Your task to perform on an android device: change alarm snooze length Image 0: 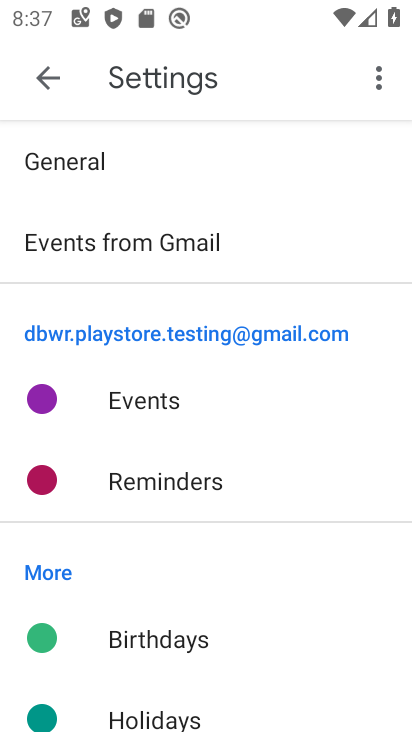
Step 0: press home button
Your task to perform on an android device: change alarm snooze length Image 1: 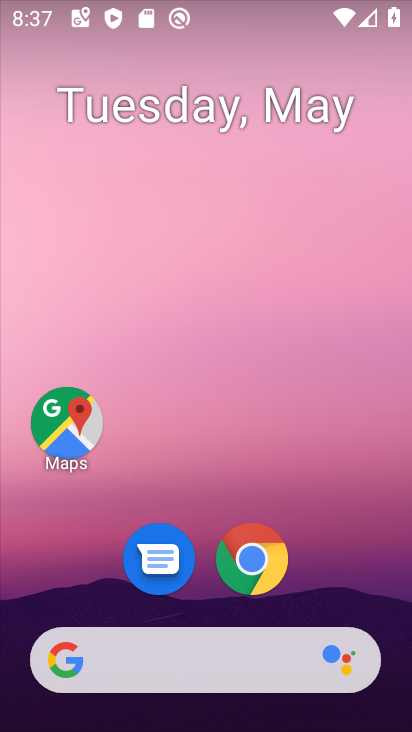
Step 1: drag from (333, 481) to (315, 78)
Your task to perform on an android device: change alarm snooze length Image 2: 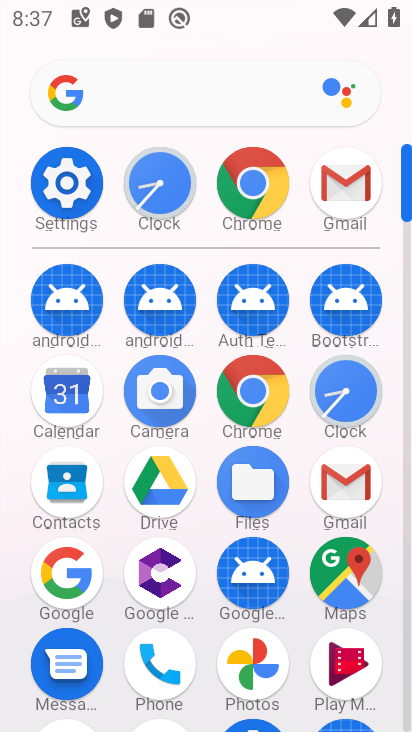
Step 2: click (343, 401)
Your task to perform on an android device: change alarm snooze length Image 3: 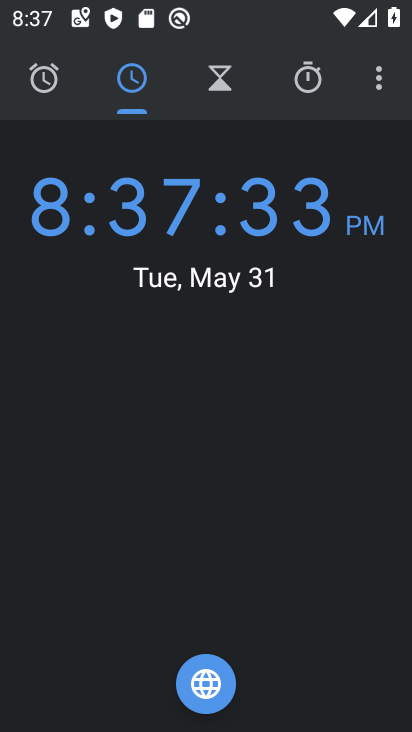
Step 3: click (388, 82)
Your task to perform on an android device: change alarm snooze length Image 4: 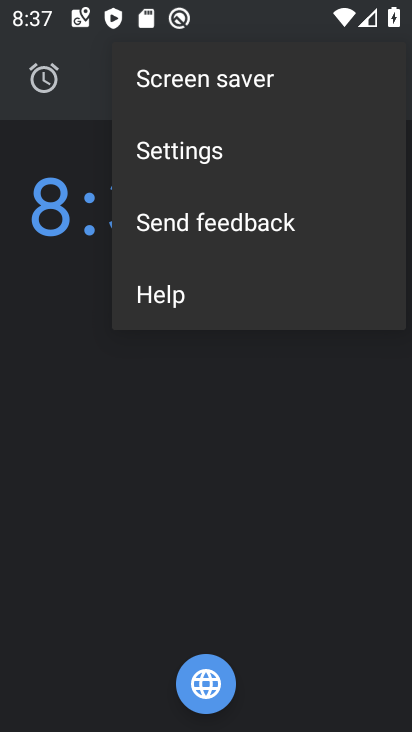
Step 4: click (167, 158)
Your task to perform on an android device: change alarm snooze length Image 5: 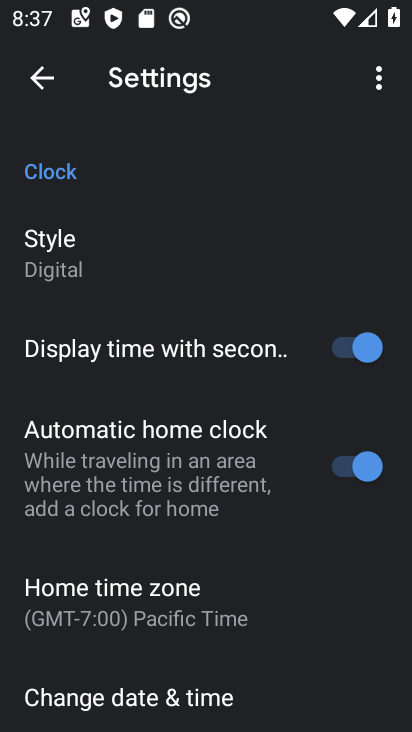
Step 5: drag from (261, 640) to (252, 247)
Your task to perform on an android device: change alarm snooze length Image 6: 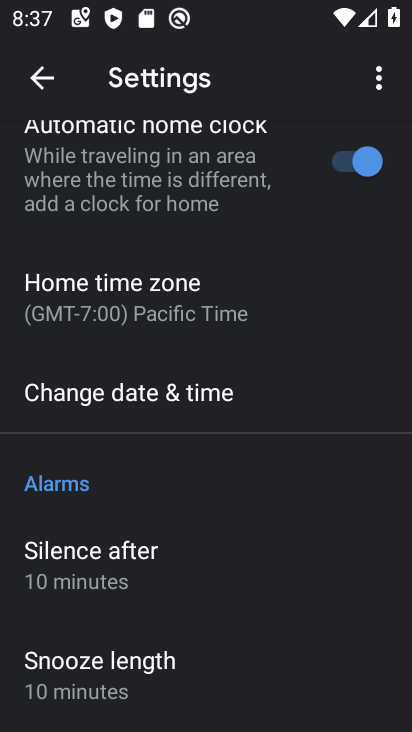
Step 6: drag from (259, 617) to (266, 383)
Your task to perform on an android device: change alarm snooze length Image 7: 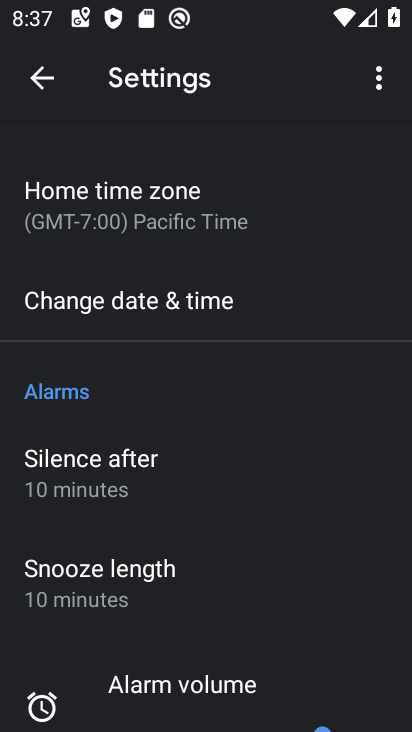
Step 7: click (113, 583)
Your task to perform on an android device: change alarm snooze length Image 8: 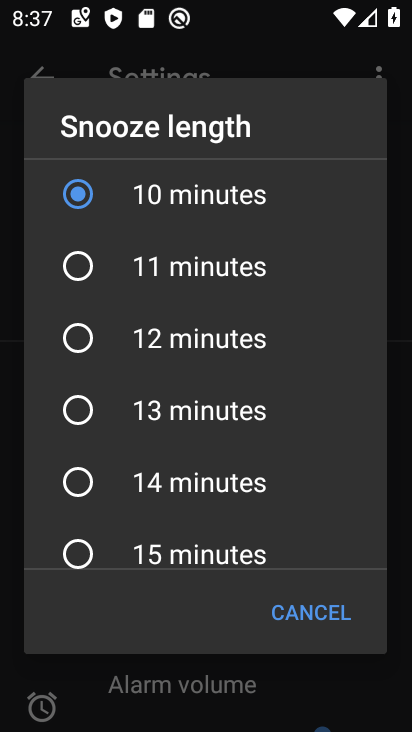
Step 8: click (78, 411)
Your task to perform on an android device: change alarm snooze length Image 9: 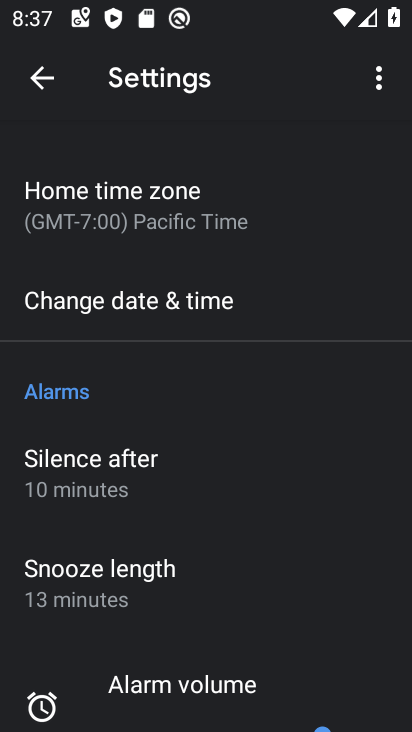
Step 9: task complete